Your task to perform on an android device: star an email in the gmail app Image 0: 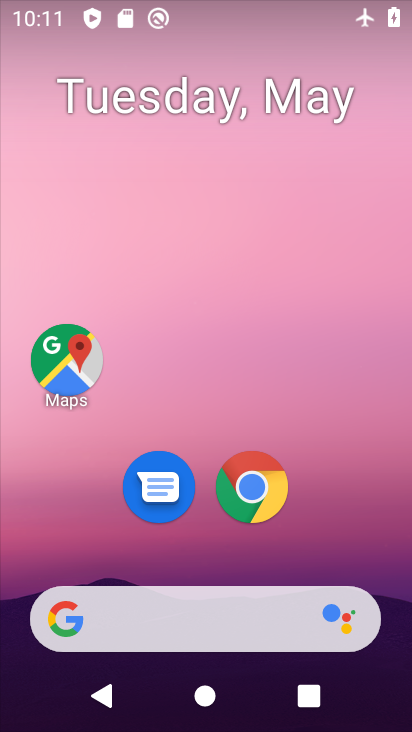
Step 0: drag from (216, 497) to (307, 45)
Your task to perform on an android device: star an email in the gmail app Image 1: 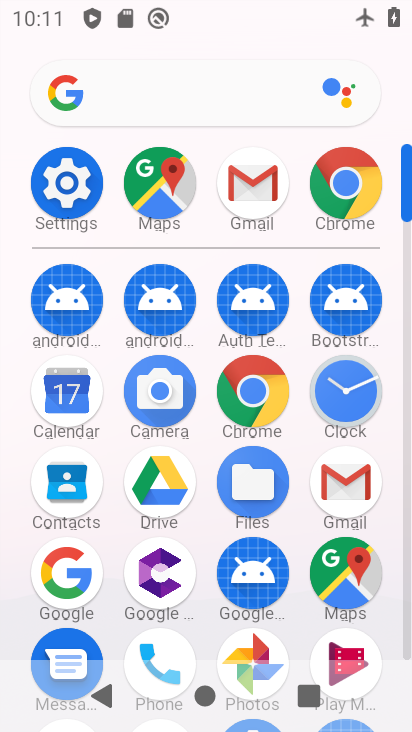
Step 1: click (367, 485)
Your task to perform on an android device: star an email in the gmail app Image 2: 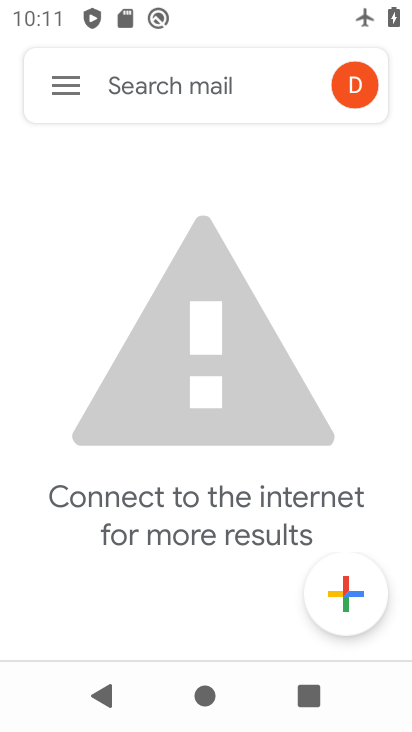
Step 2: task complete